Your task to perform on an android device: Go to privacy settings Image 0: 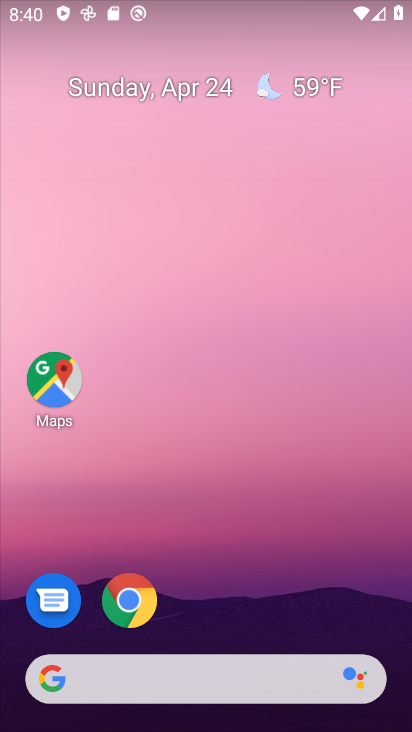
Step 0: drag from (219, 728) to (229, 212)
Your task to perform on an android device: Go to privacy settings Image 1: 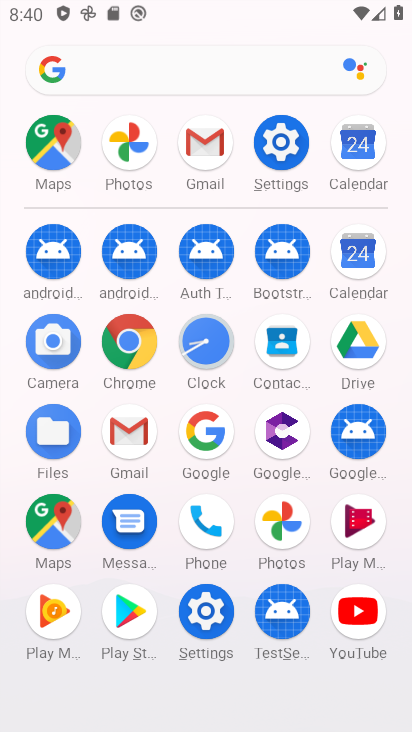
Step 1: click (279, 142)
Your task to perform on an android device: Go to privacy settings Image 2: 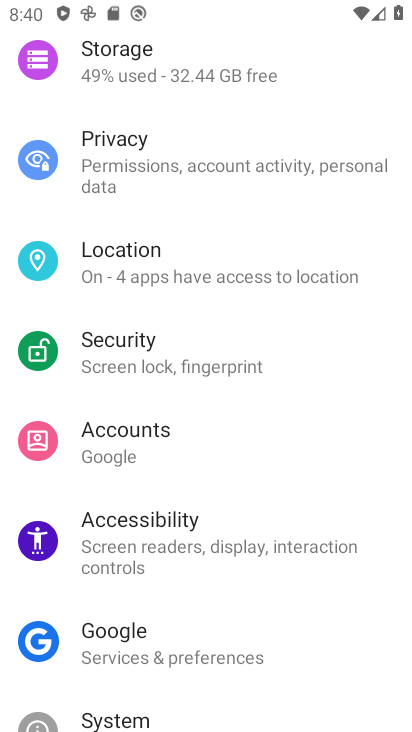
Step 2: click (122, 163)
Your task to perform on an android device: Go to privacy settings Image 3: 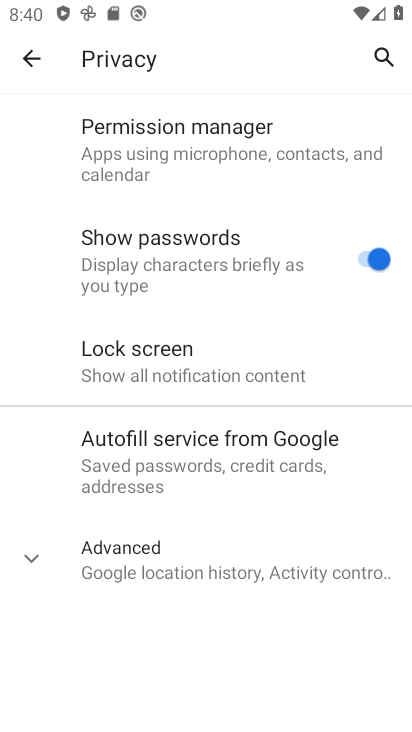
Step 3: task complete